Your task to perform on an android device: turn on showing notifications on the lock screen Image 0: 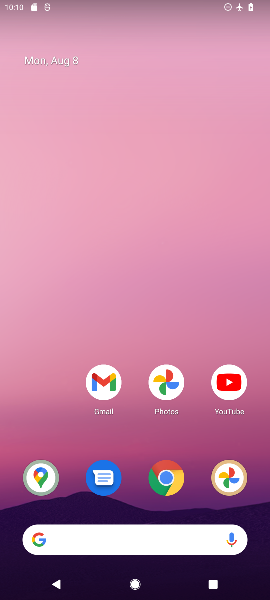
Step 0: drag from (178, 513) to (268, 193)
Your task to perform on an android device: turn on showing notifications on the lock screen Image 1: 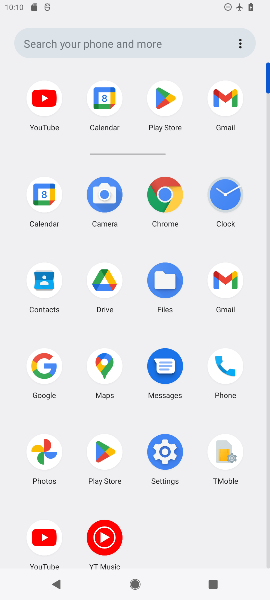
Step 1: click (162, 451)
Your task to perform on an android device: turn on showing notifications on the lock screen Image 2: 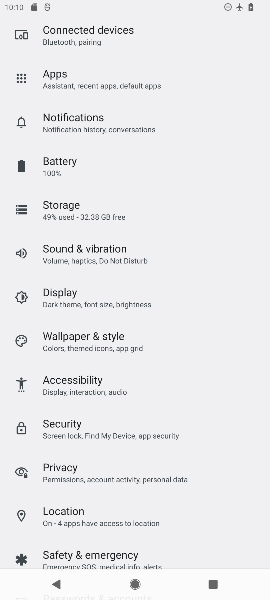
Step 2: click (110, 124)
Your task to perform on an android device: turn on showing notifications on the lock screen Image 3: 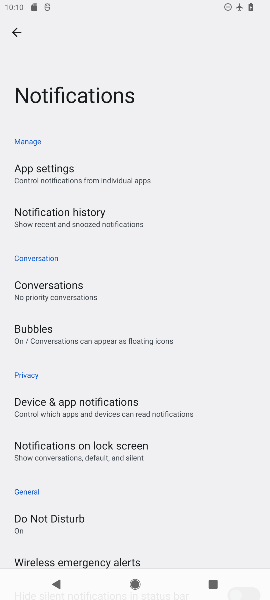
Step 3: click (126, 449)
Your task to perform on an android device: turn on showing notifications on the lock screen Image 4: 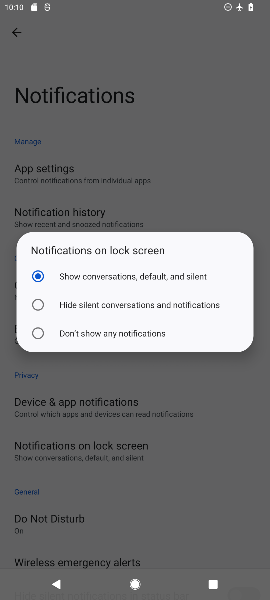
Step 4: click (56, 279)
Your task to perform on an android device: turn on showing notifications on the lock screen Image 5: 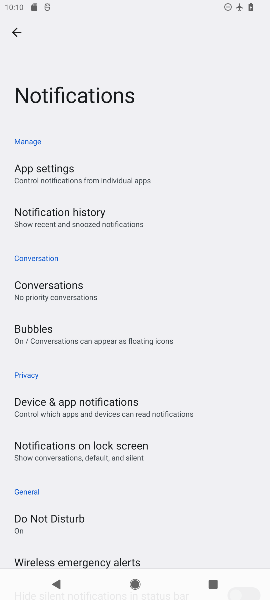
Step 5: task complete